Your task to perform on an android device: Go to notification settings Image 0: 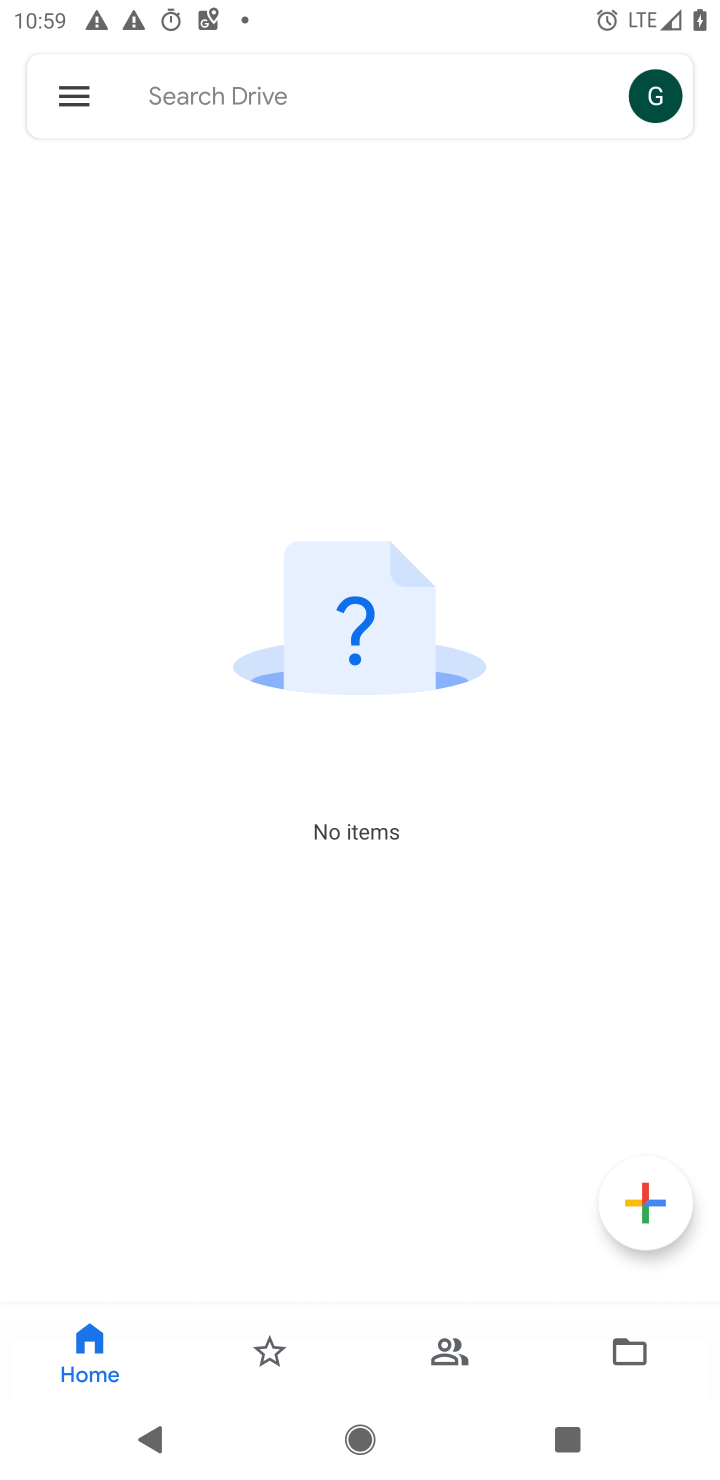
Step 0: press back button
Your task to perform on an android device: Go to notification settings Image 1: 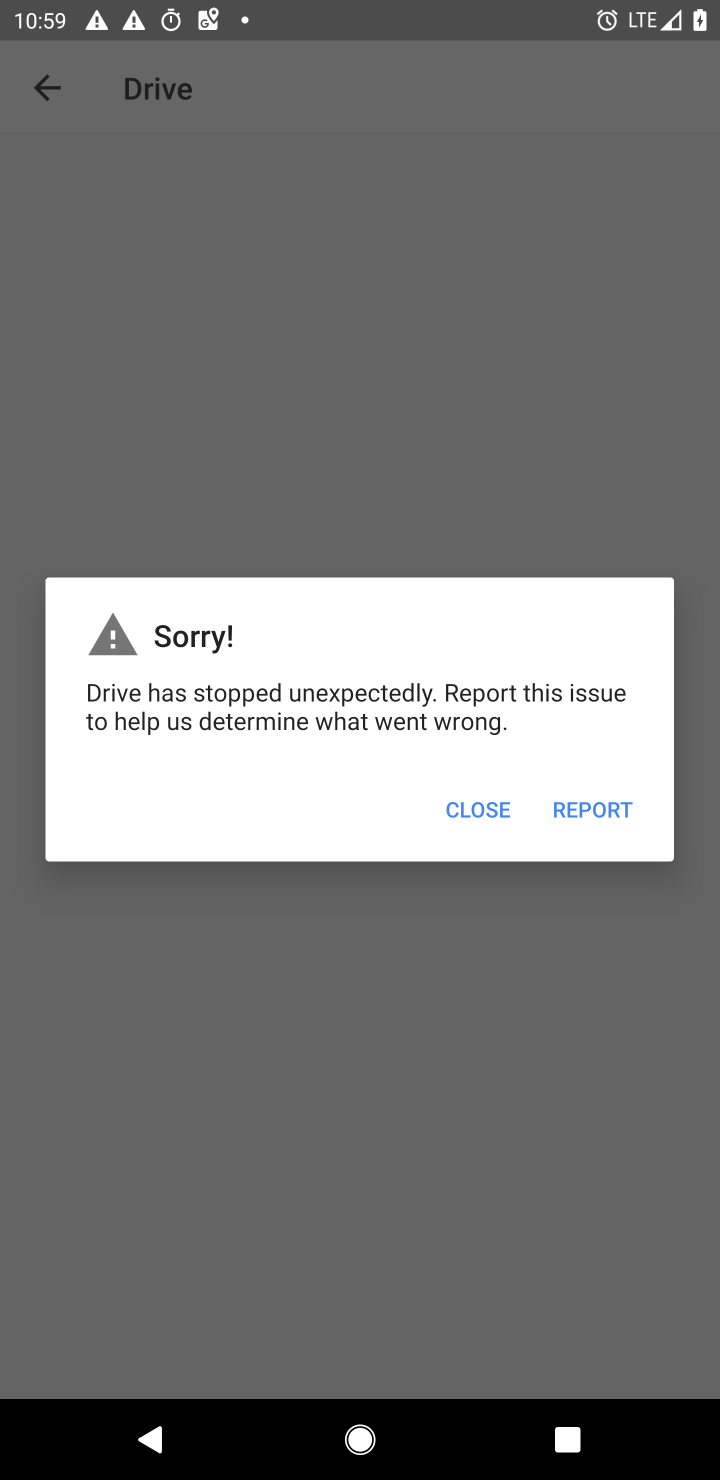
Step 1: click (477, 824)
Your task to perform on an android device: Go to notification settings Image 2: 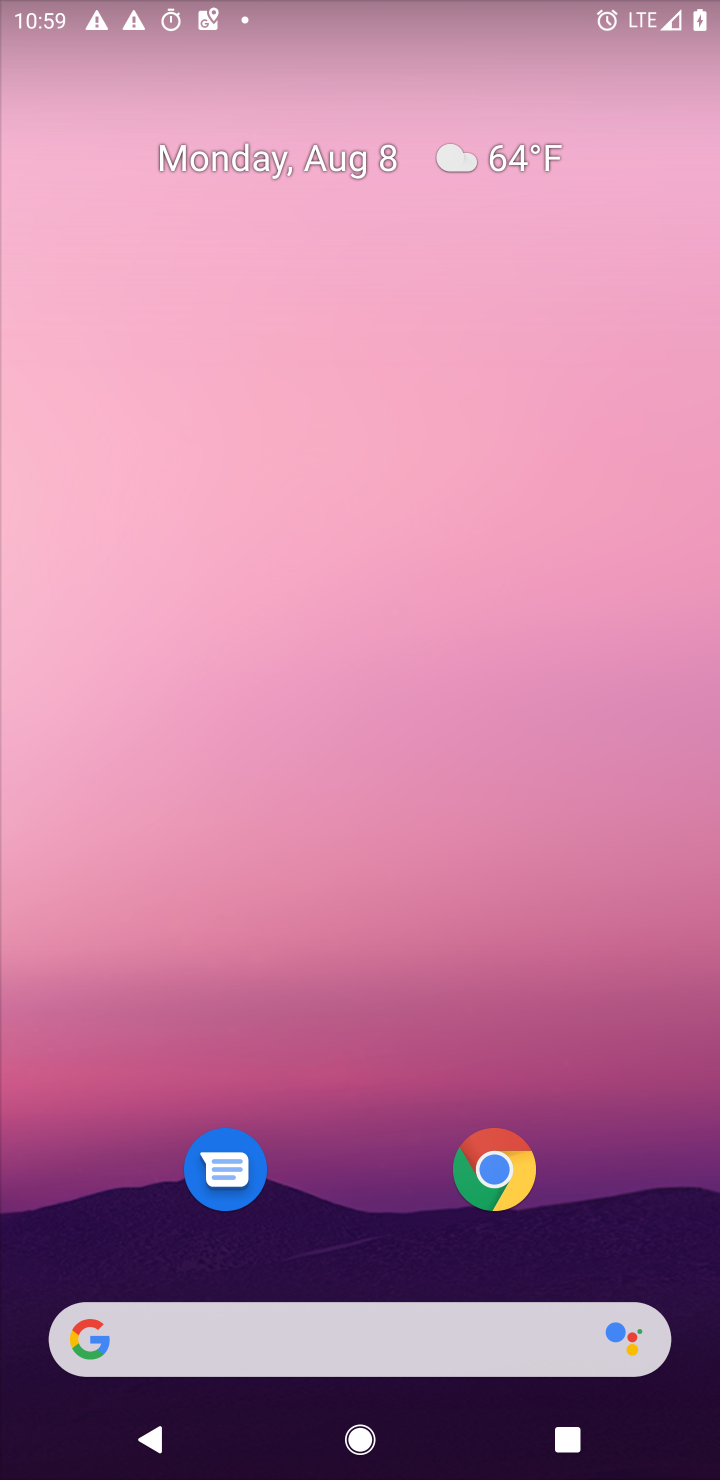
Step 2: drag from (332, 1165) to (460, 142)
Your task to perform on an android device: Go to notification settings Image 3: 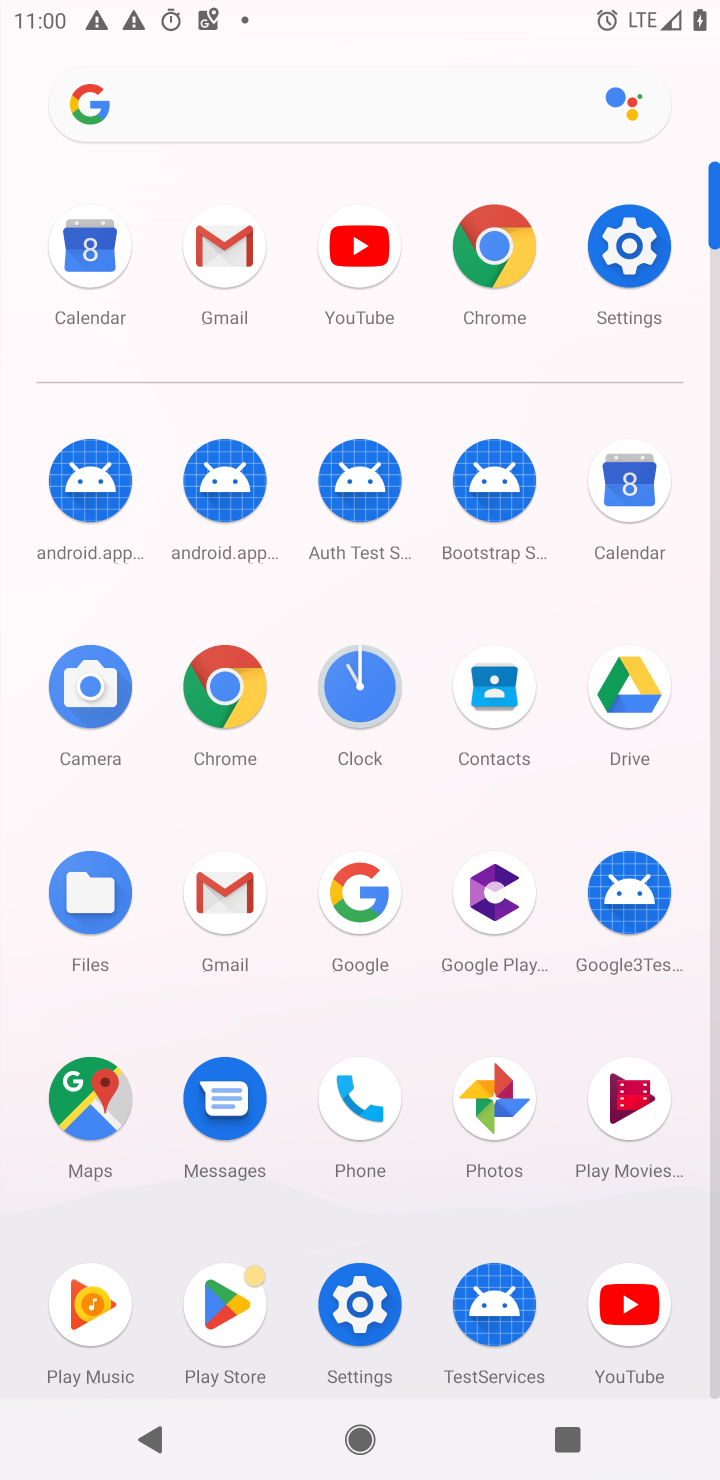
Step 3: click (354, 1319)
Your task to perform on an android device: Go to notification settings Image 4: 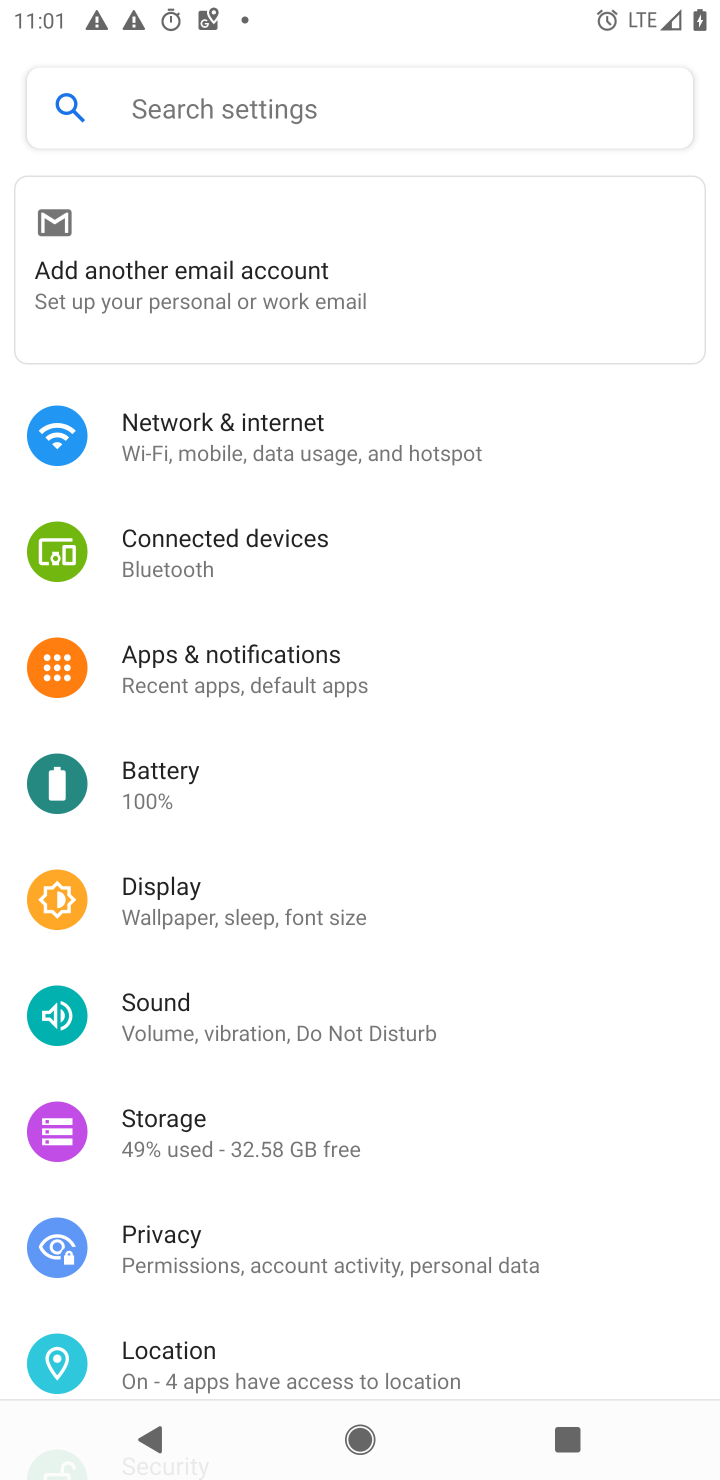
Step 4: click (243, 646)
Your task to perform on an android device: Go to notification settings Image 5: 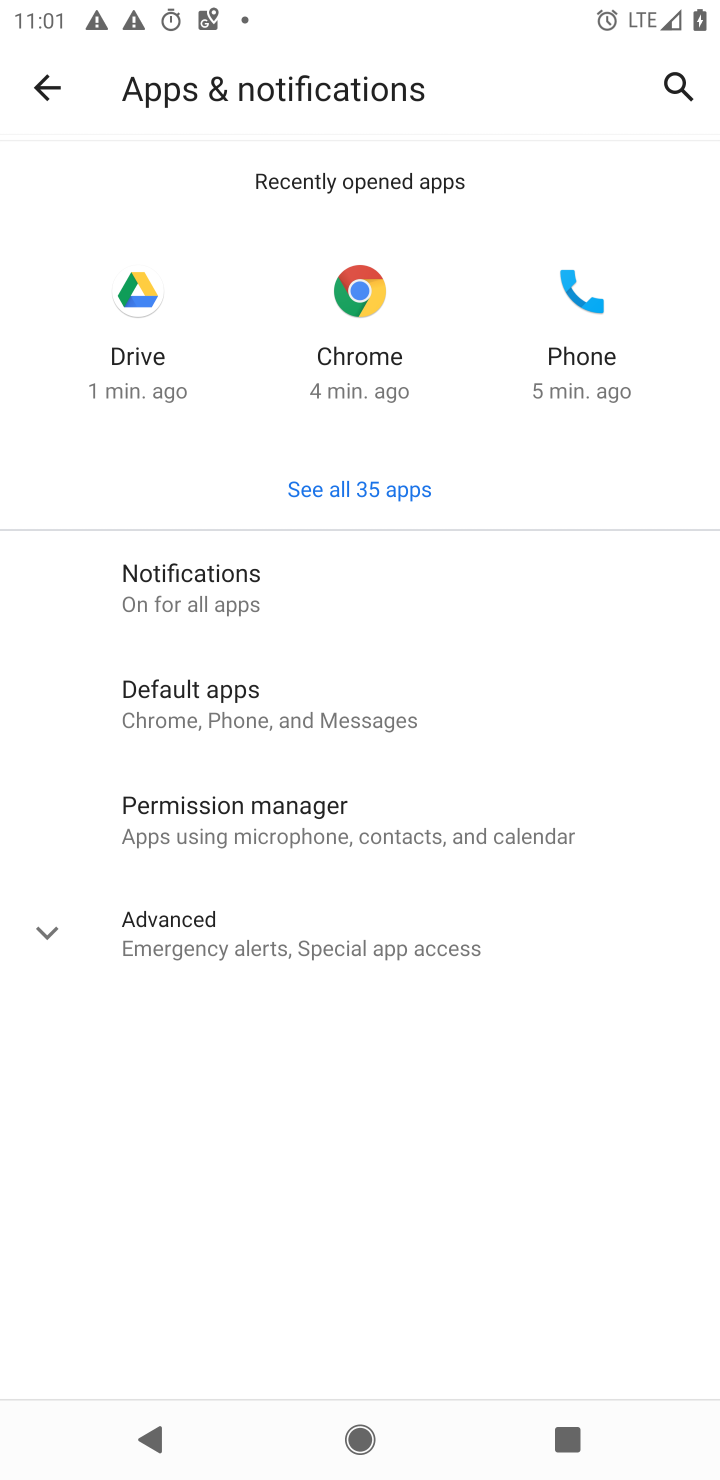
Step 5: task complete